Your task to perform on an android device: turn off notifications in google photos Image 0: 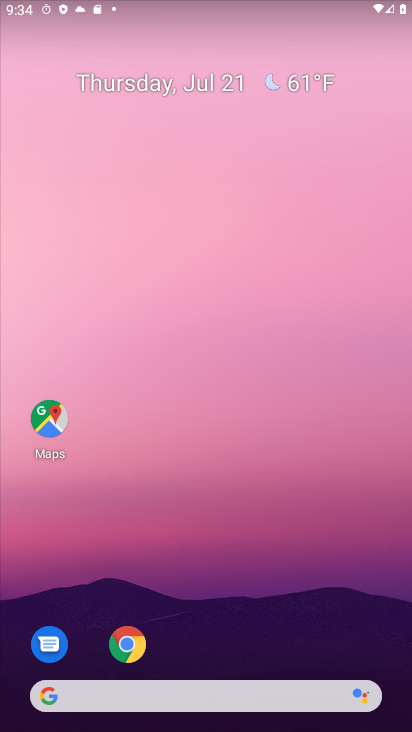
Step 0: click (162, 138)
Your task to perform on an android device: turn off notifications in google photos Image 1: 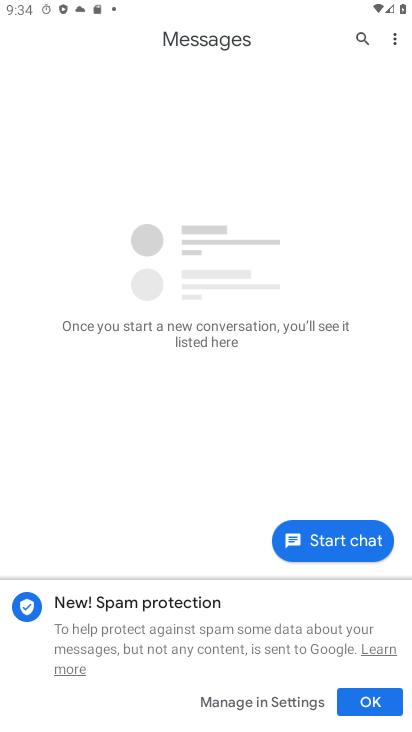
Step 1: press back button
Your task to perform on an android device: turn off notifications in google photos Image 2: 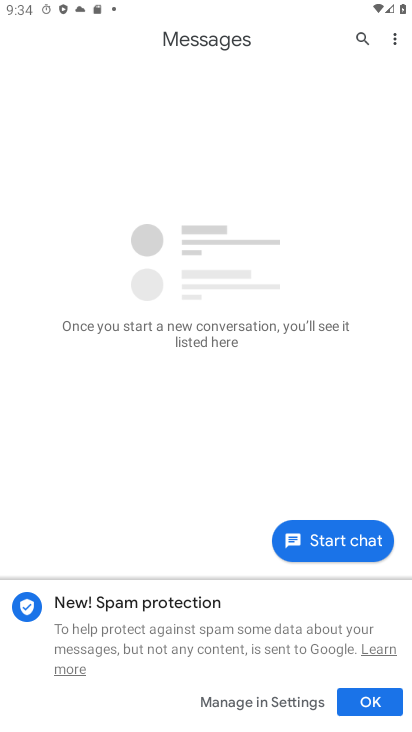
Step 2: press back button
Your task to perform on an android device: turn off notifications in google photos Image 3: 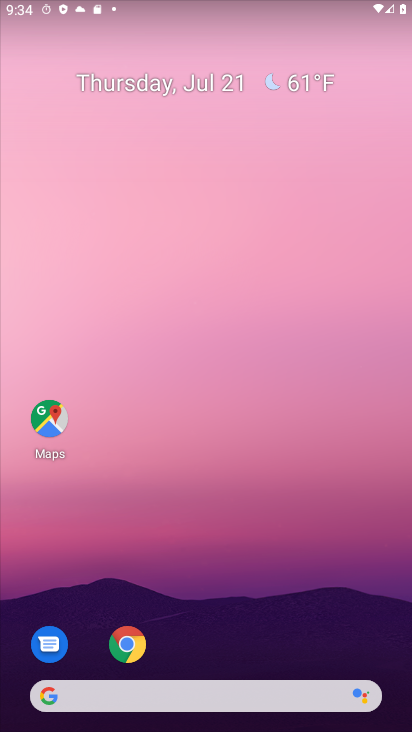
Step 3: press back button
Your task to perform on an android device: turn off notifications in google photos Image 4: 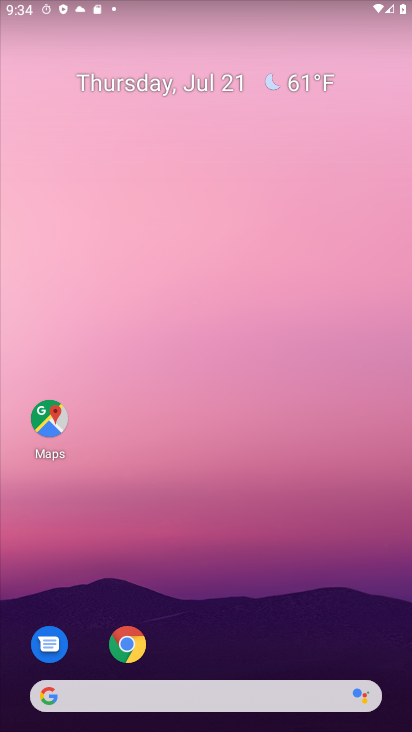
Step 4: drag from (226, 675) to (259, 195)
Your task to perform on an android device: turn off notifications in google photos Image 5: 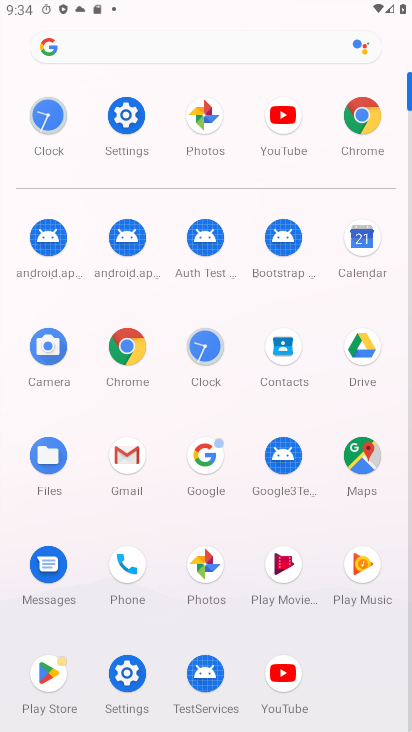
Step 5: click (209, 560)
Your task to perform on an android device: turn off notifications in google photos Image 6: 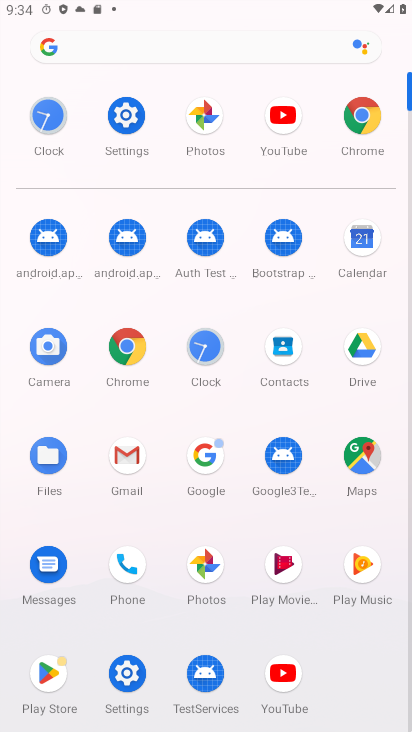
Step 6: click (206, 549)
Your task to perform on an android device: turn off notifications in google photos Image 7: 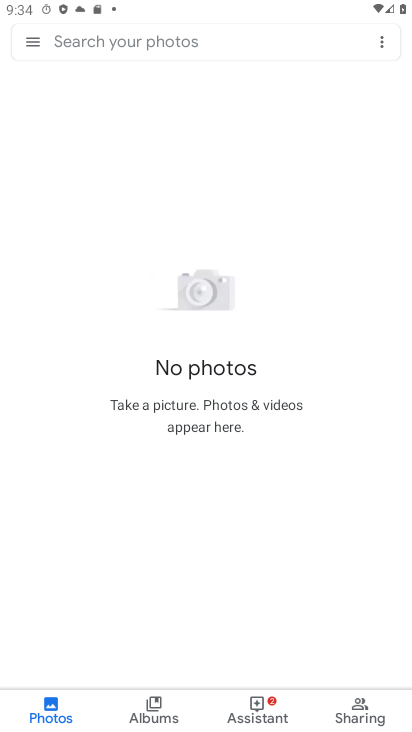
Step 7: click (32, 39)
Your task to perform on an android device: turn off notifications in google photos Image 8: 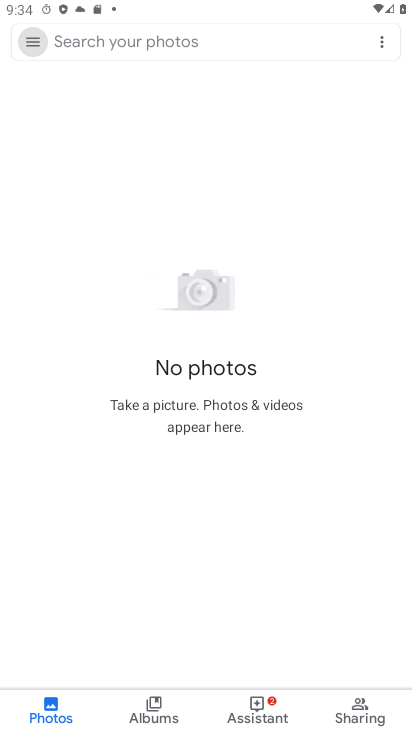
Step 8: click (32, 39)
Your task to perform on an android device: turn off notifications in google photos Image 9: 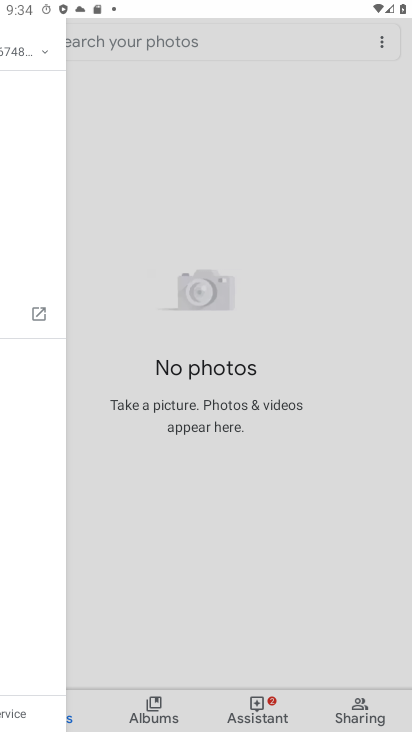
Step 9: click (33, 39)
Your task to perform on an android device: turn off notifications in google photos Image 10: 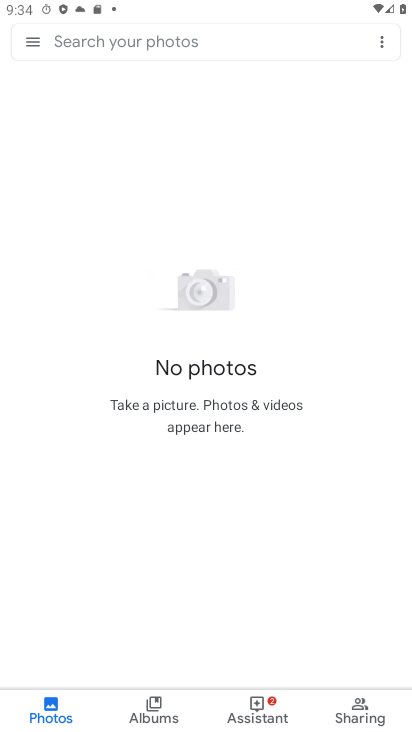
Step 10: click (28, 41)
Your task to perform on an android device: turn off notifications in google photos Image 11: 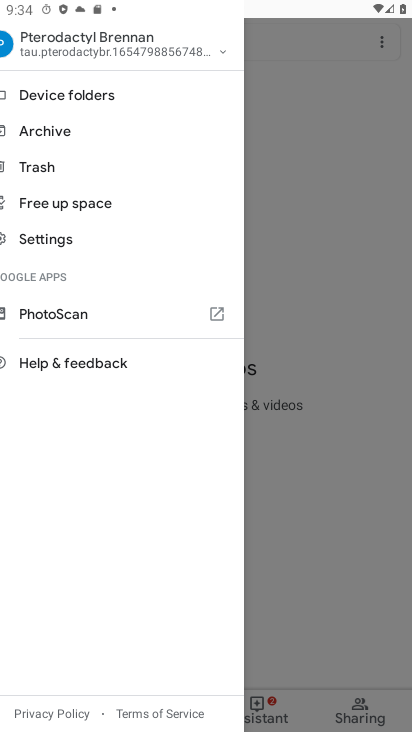
Step 11: click (29, 41)
Your task to perform on an android device: turn off notifications in google photos Image 12: 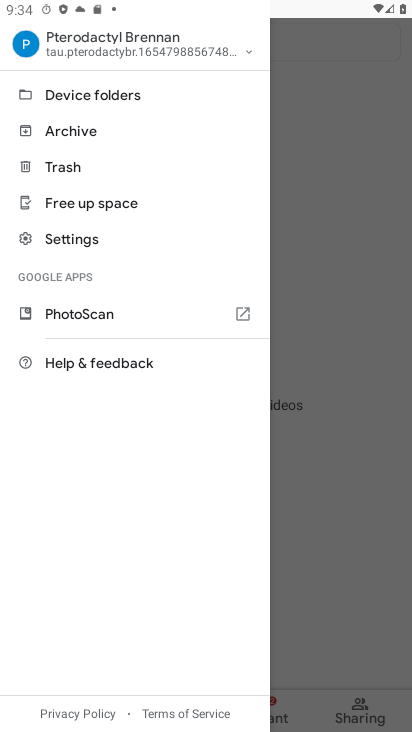
Step 12: click (31, 41)
Your task to perform on an android device: turn off notifications in google photos Image 13: 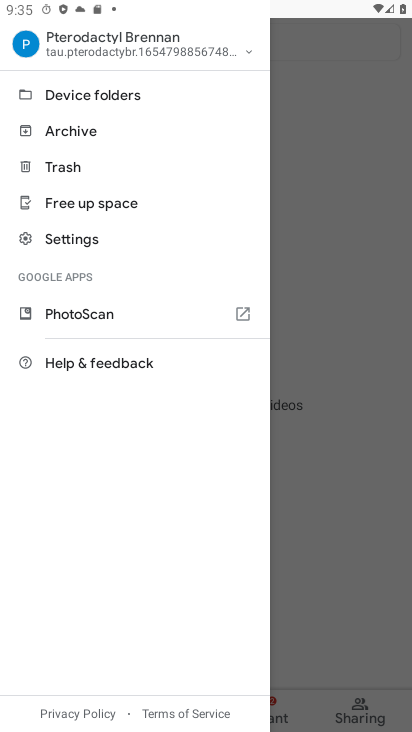
Step 13: click (69, 238)
Your task to perform on an android device: turn off notifications in google photos Image 14: 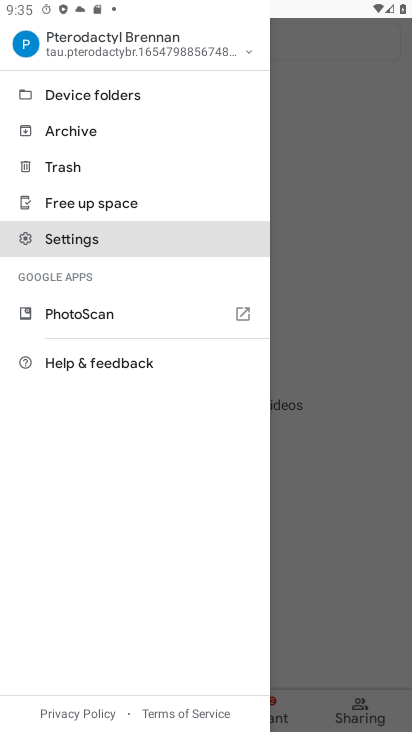
Step 14: click (69, 235)
Your task to perform on an android device: turn off notifications in google photos Image 15: 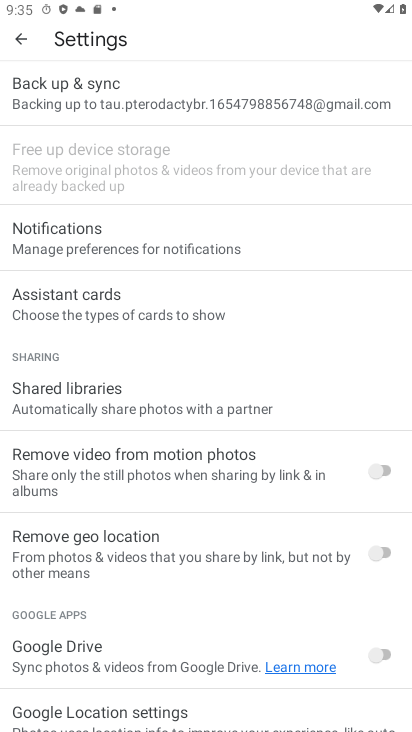
Step 15: click (123, 247)
Your task to perform on an android device: turn off notifications in google photos Image 16: 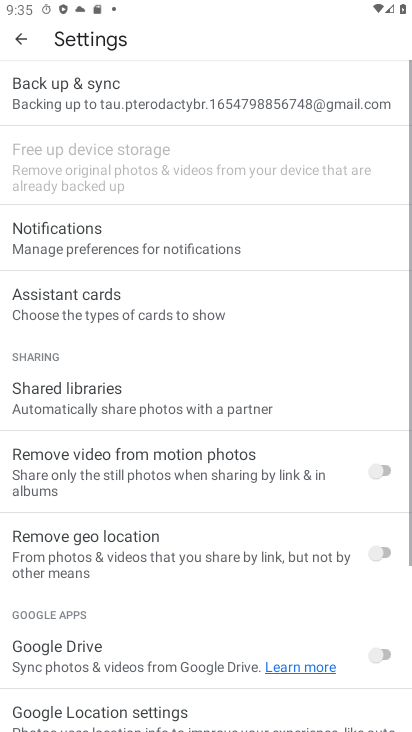
Step 16: click (134, 237)
Your task to perform on an android device: turn off notifications in google photos Image 17: 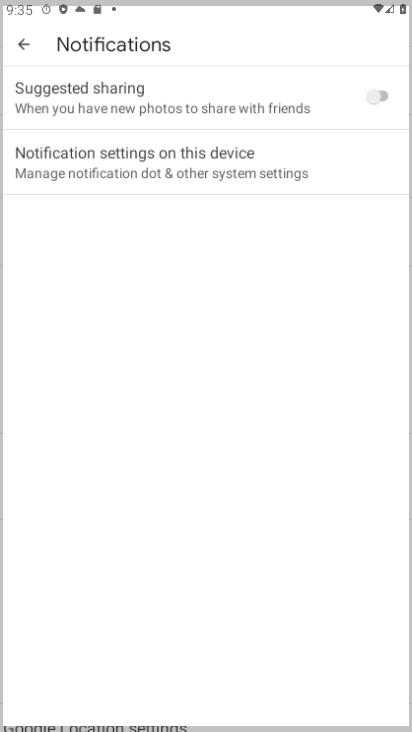
Step 17: click (136, 245)
Your task to perform on an android device: turn off notifications in google photos Image 18: 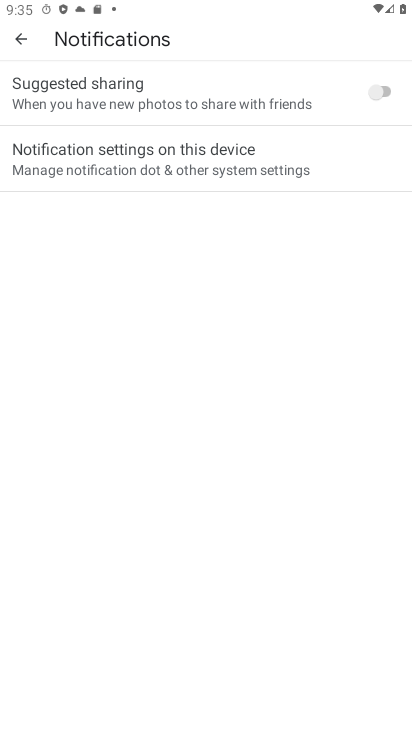
Step 18: click (136, 245)
Your task to perform on an android device: turn off notifications in google photos Image 19: 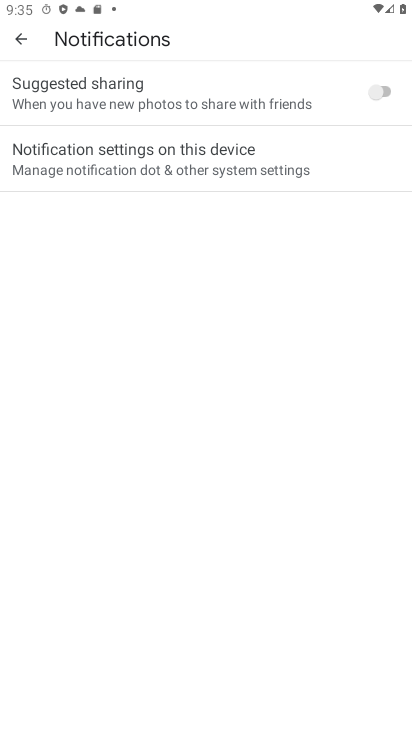
Step 19: click (376, 94)
Your task to perform on an android device: turn off notifications in google photos Image 20: 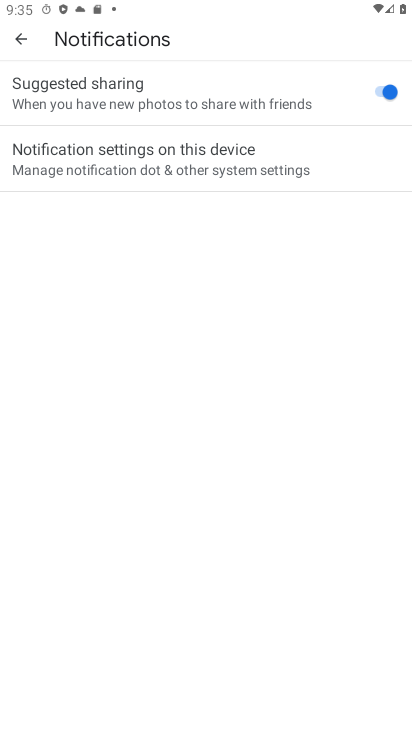
Step 20: click (275, 156)
Your task to perform on an android device: turn off notifications in google photos Image 21: 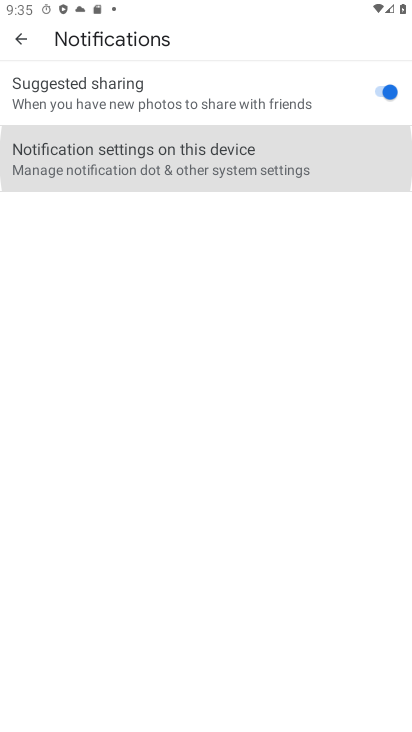
Step 21: click (277, 156)
Your task to perform on an android device: turn off notifications in google photos Image 22: 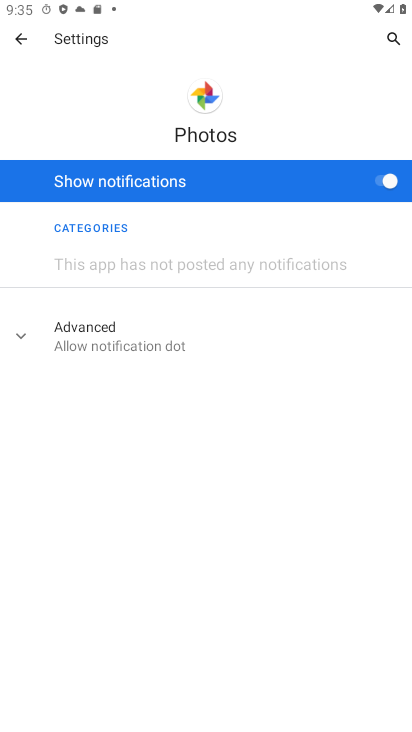
Step 22: click (391, 181)
Your task to perform on an android device: turn off notifications in google photos Image 23: 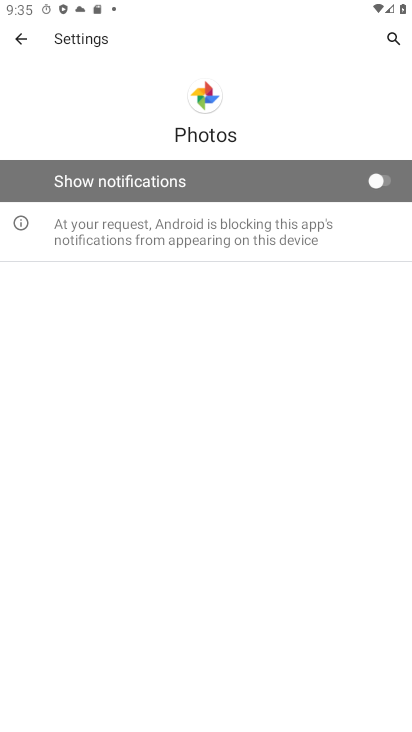
Step 23: task complete